Your task to perform on an android device: turn off picture-in-picture Image 0: 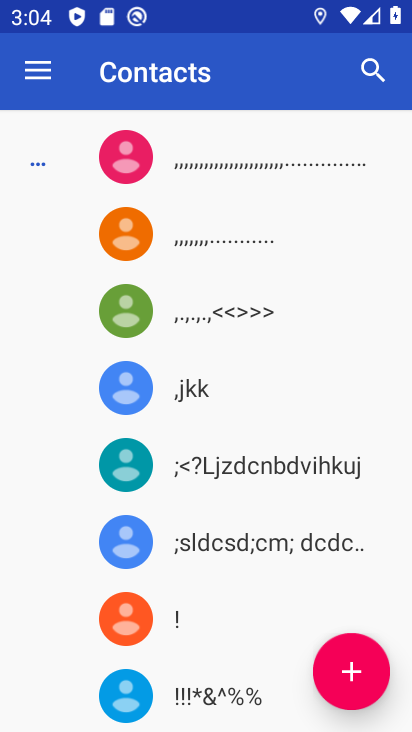
Step 0: press home button
Your task to perform on an android device: turn off picture-in-picture Image 1: 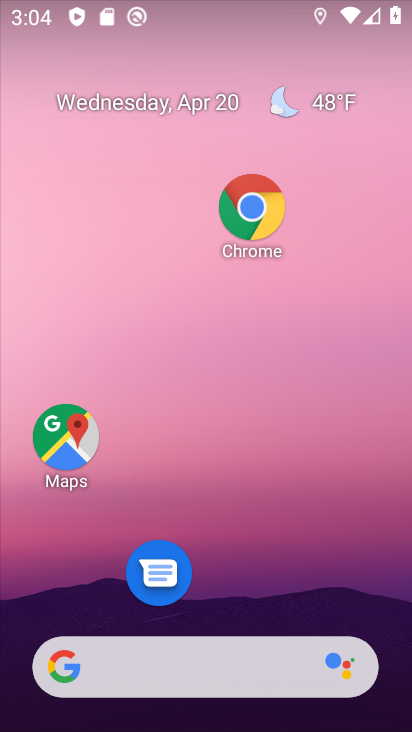
Step 1: drag from (235, 426) to (251, 324)
Your task to perform on an android device: turn off picture-in-picture Image 2: 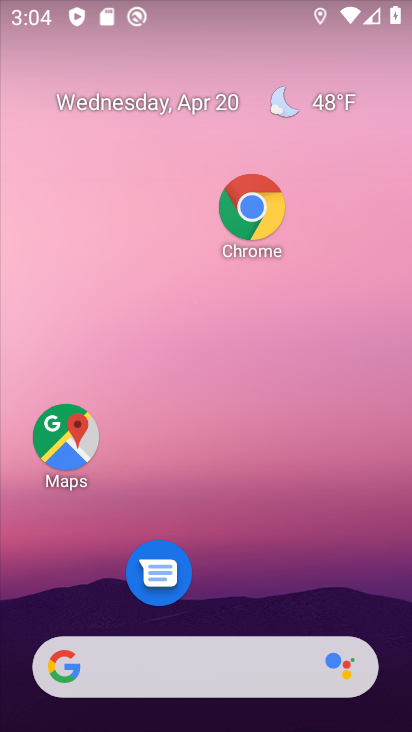
Step 2: drag from (248, 633) to (276, 156)
Your task to perform on an android device: turn off picture-in-picture Image 3: 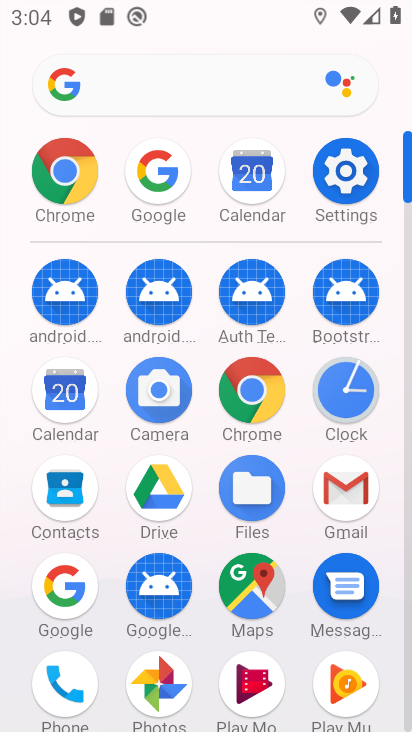
Step 3: click (345, 197)
Your task to perform on an android device: turn off picture-in-picture Image 4: 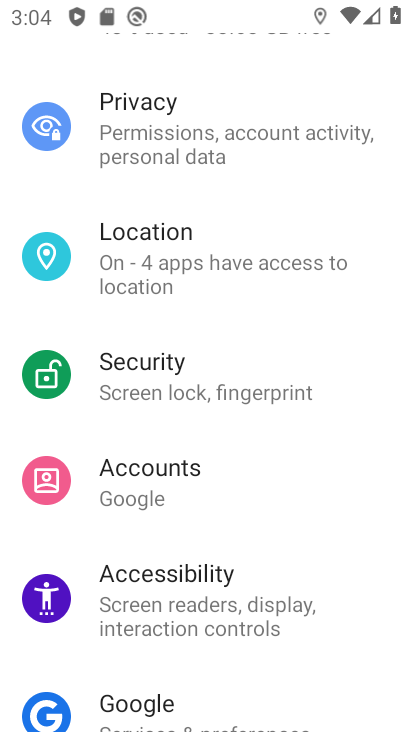
Step 4: drag from (253, 240) to (215, 584)
Your task to perform on an android device: turn off picture-in-picture Image 5: 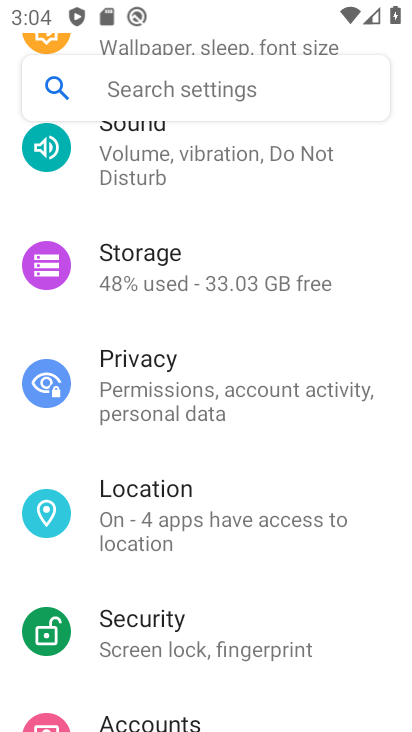
Step 5: drag from (232, 308) to (151, 731)
Your task to perform on an android device: turn off picture-in-picture Image 6: 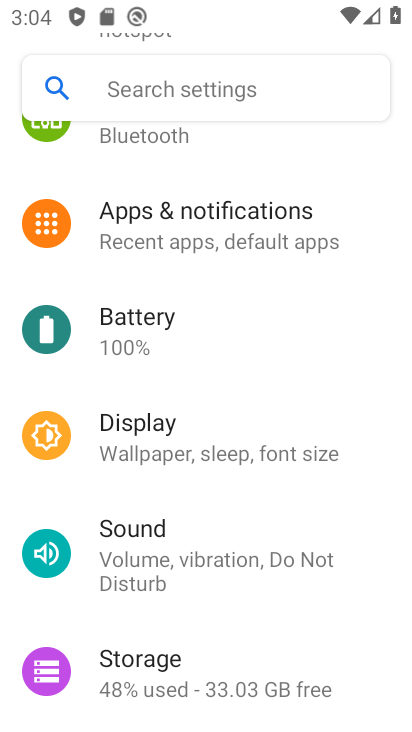
Step 6: click (285, 209)
Your task to perform on an android device: turn off picture-in-picture Image 7: 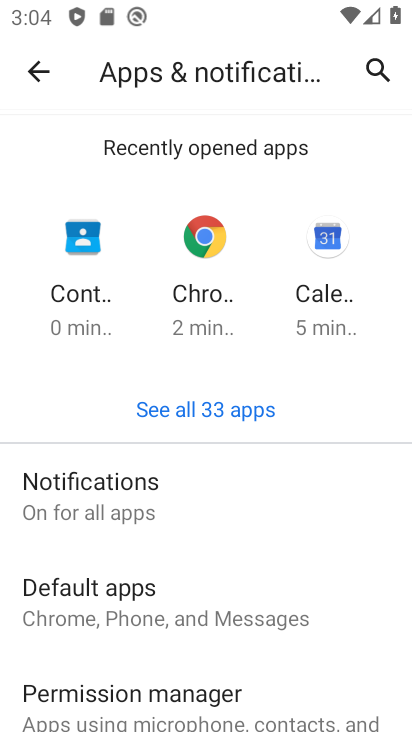
Step 7: drag from (206, 583) to (235, 422)
Your task to perform on an android device: turn off picture-in-picture Image 8: 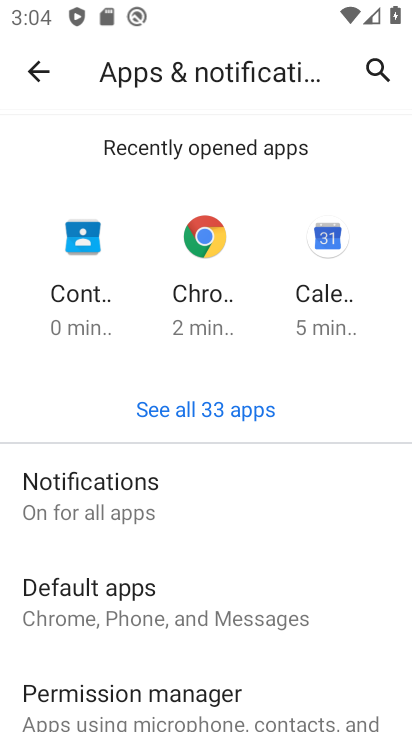
Step 8: drag from (226, 590) to (253, 345)
Your task to perform on an android device: turn off picture-in-picture Image 9: 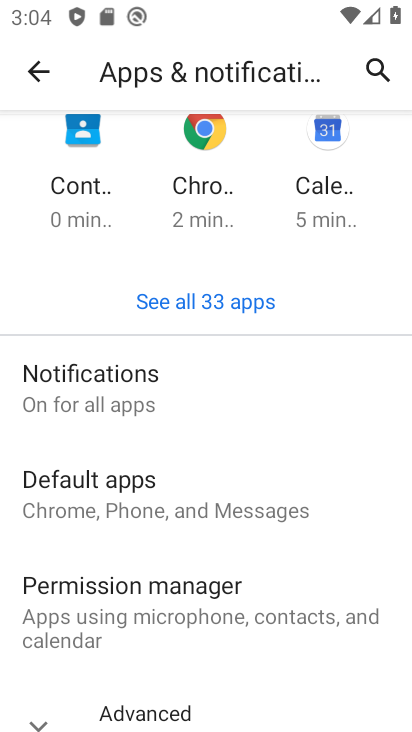
Step 9: drag from (235, 579) to (277, 295)
Your task to perform on an android device: turn off picture-in-picture Image 10: 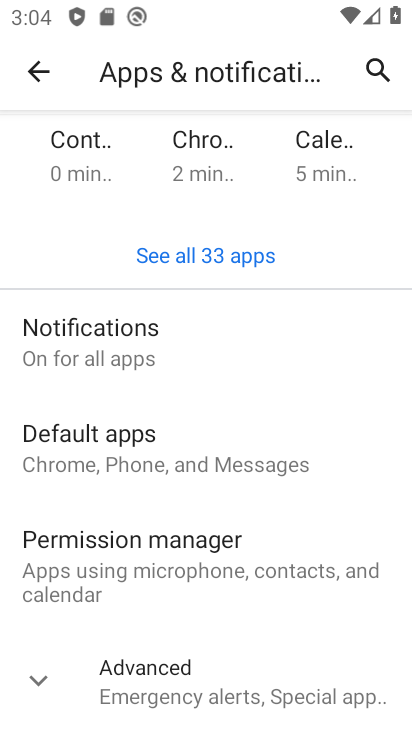
Step 10: drag from (228, 460) to (248, 313)
Your task to perform on an android device: turn off picture-in-picture Image 11: 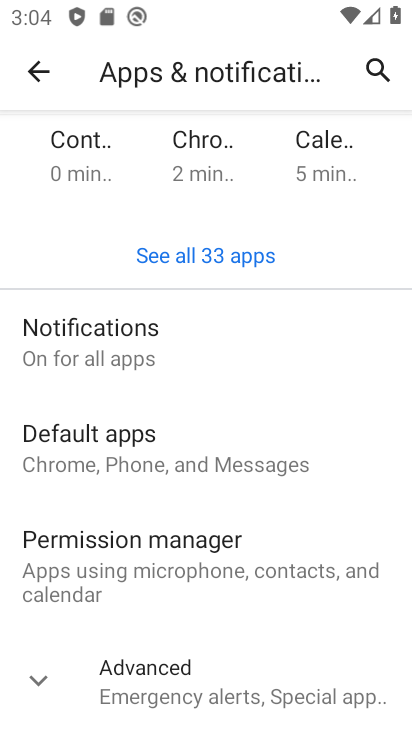
Step 11: click (198, 659)
Your task to perform on an android device: turn off picture-in-picture Image 12: 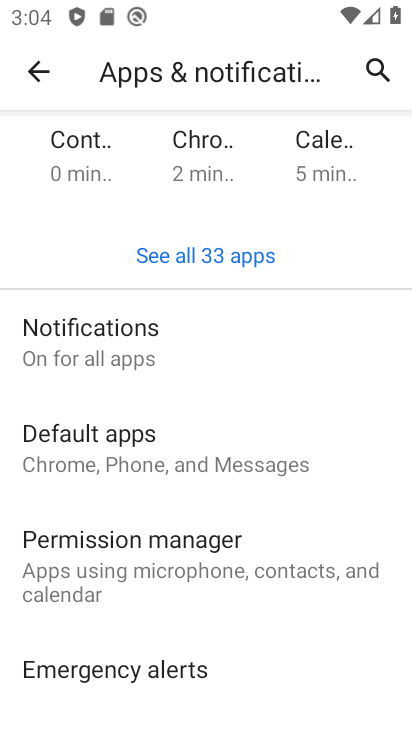
Step 12: drag from (198, 659) to (247, 267)
Your task to perform on an android device: turn off picture-in-picture Image 13: 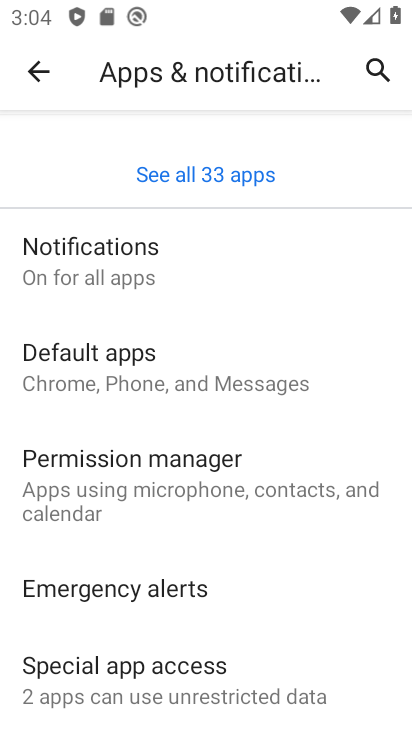
Step 13: drag from (239, 483) to (276, 233)
Your task to perform on an android device: turn off picture-in-picture Image 14: 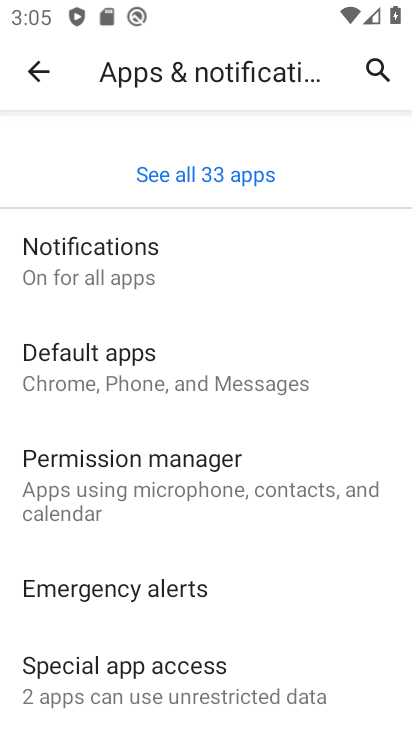
Step 14: drag from (231, 531) to (250, 352)
Your task to perform on an android device: turn off picture-in-picture Image 15: 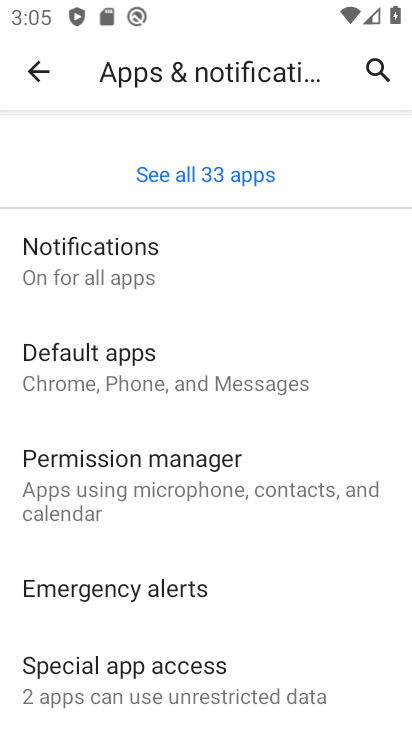
Step 15: drag from (230, 545) to (272, 222)
Your task to perform on an android device: turn off picture-in-picture Image 16: 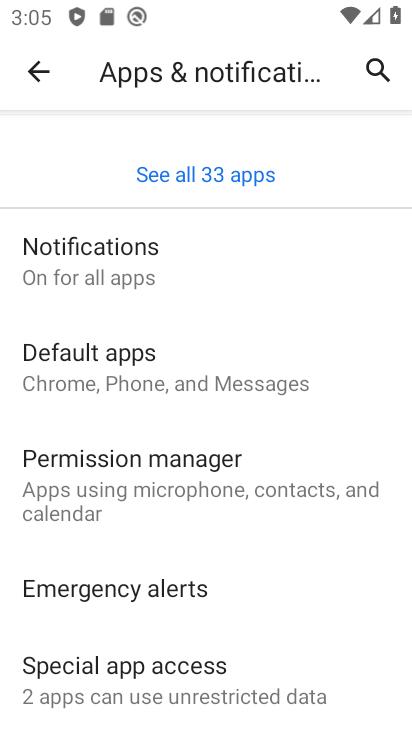
Step 16: drag from (237, 461) to (270, 195)
Your task to perform on an android device: turn off picture-in-picture Image 17: 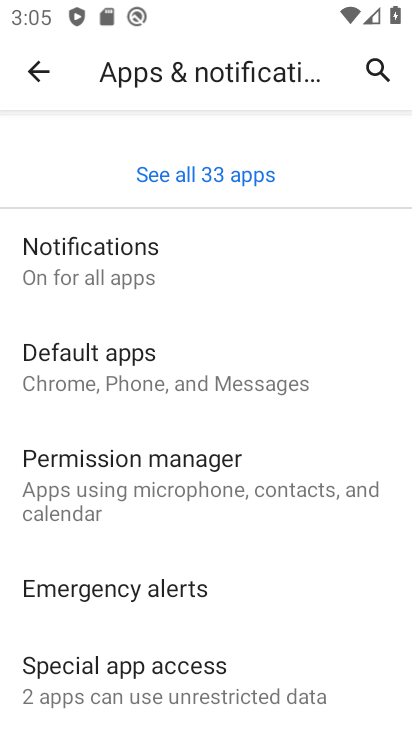
Step 17: click (216, 680)
Your task to perform on an android device: turn off picture-in-picture Image 18: 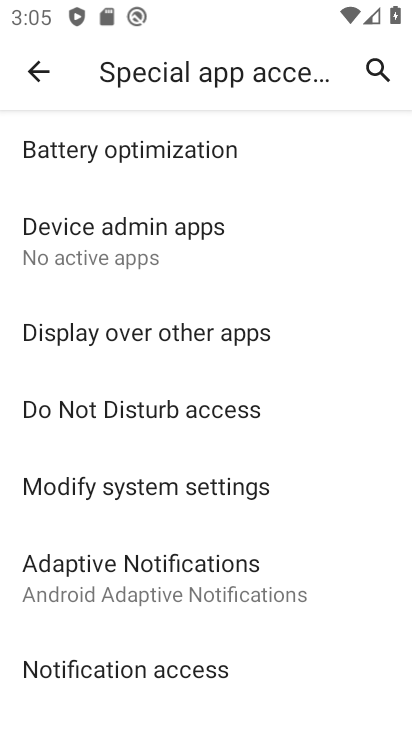
Step 18: drag from (241, 632) to (294, 268)
Your task to perform on an android device: turn off picture-in-picture Image 19: 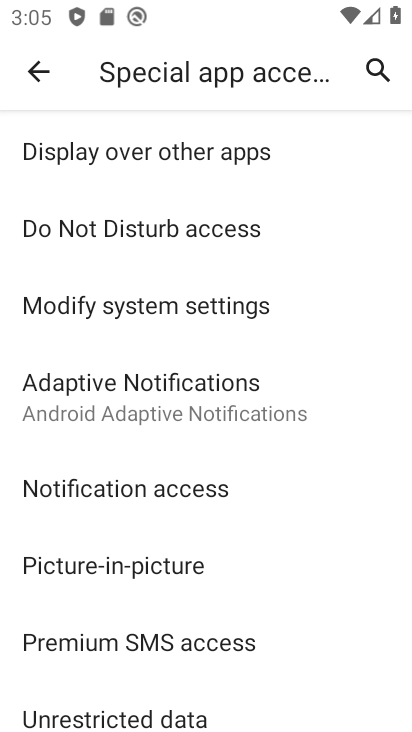
Step 19: click (197, 567)
Your task to perform on an android device: turn off picture-in-picture Image 20: 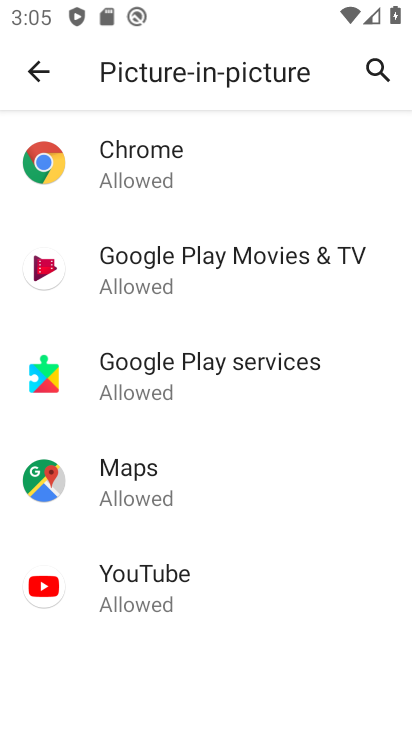
Step 20: click (287, 139)
Your task to perform on an android device: turn off picture-in-picture Image 21: 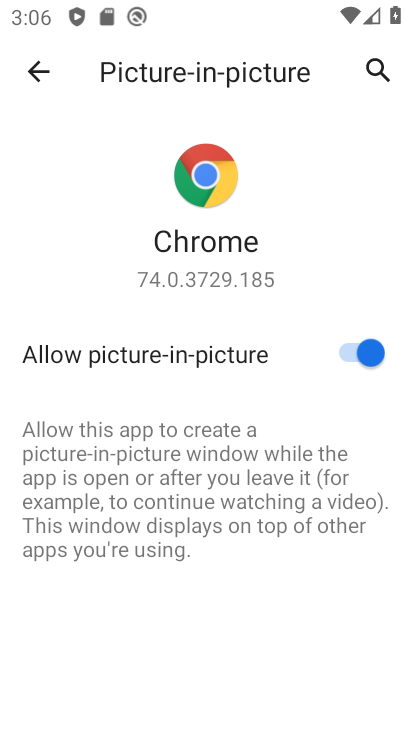
Step 21: click (351, 350)
Your task to perform on an android device: turn off picture-in-picture Image 22: 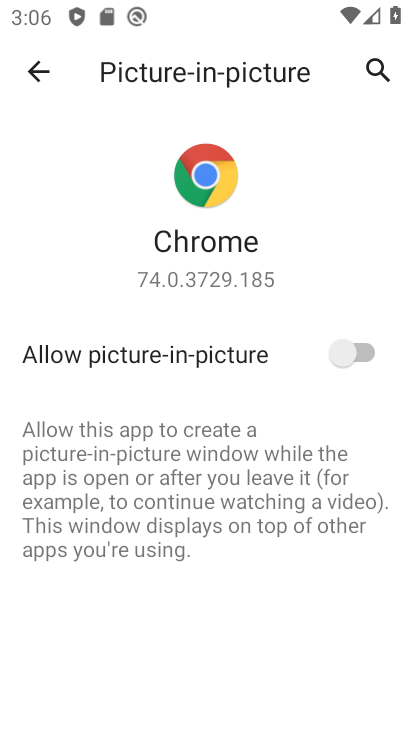
Step 22: task complete